Your task to perform on an android device: Open Maps and search for coffee Image 0: 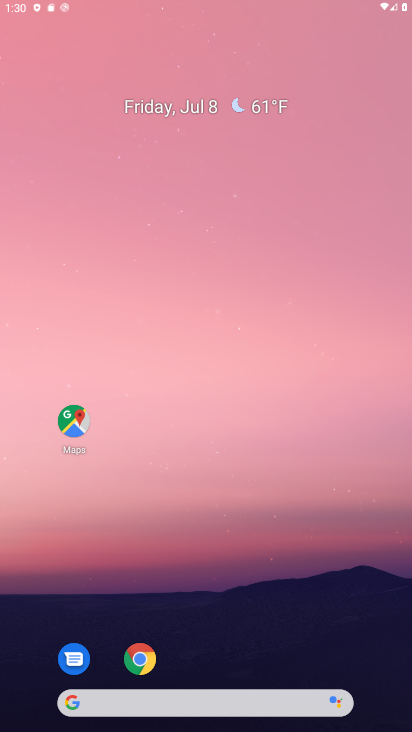
Step 0: press home button
Your task to perform on an android device: Open Maps and search for coffee Image 1: 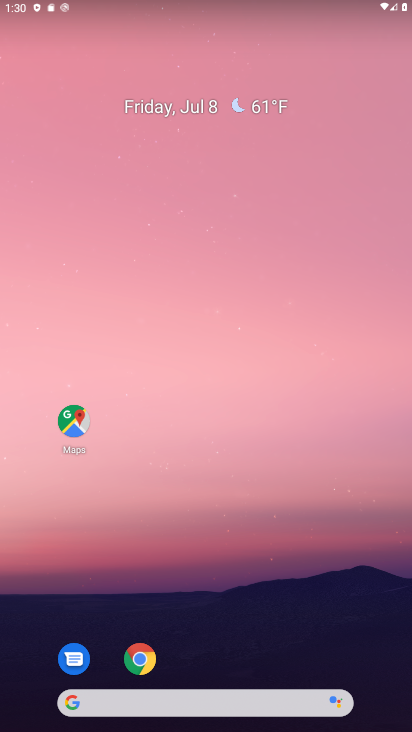
Step 1: drag from (206, 697) to (131, 178)
Your task to perform on an android device: Open Maps and search for coffee Image 2: 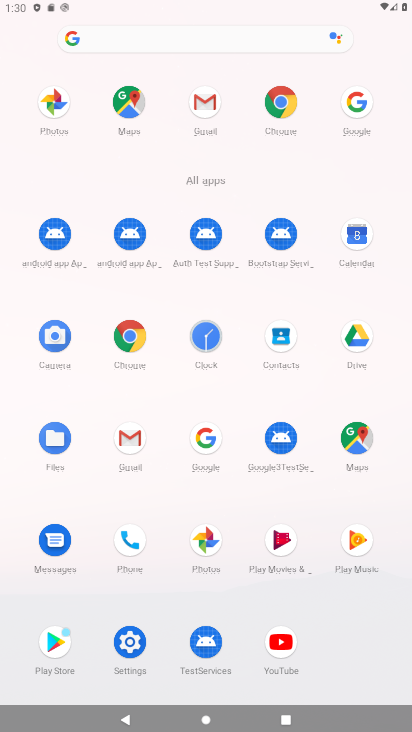
Step 2: click (358, 433)
Your task to perform on an android device: Open Maps and search for coffee Image 3: 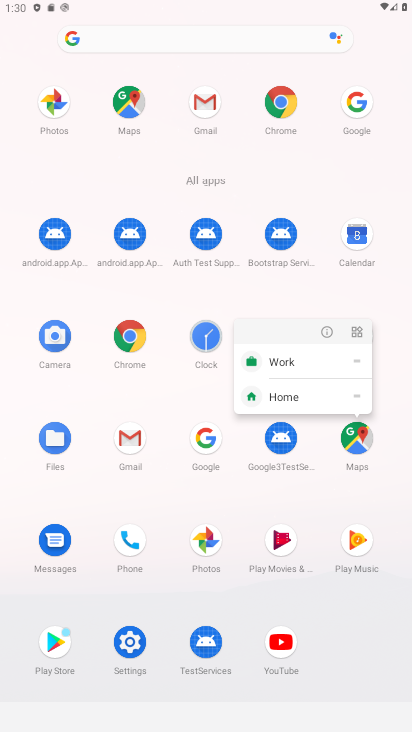
Step 3: click (358, 450)
Your task to perform on an android device: Open Maps and search for coffee Image 4: 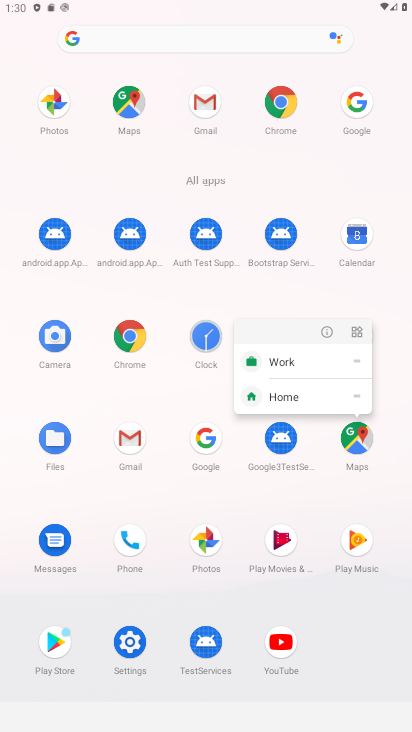
Step 4: click (355, 448)
Your task to perform on an android device: Open Maps and search for coffee Image 5: 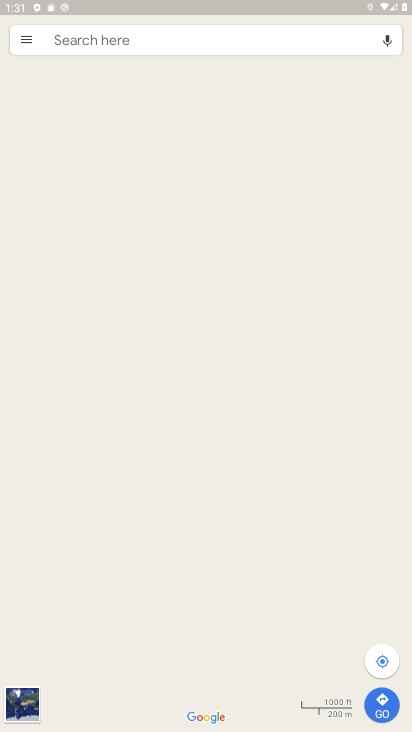
Step 5: click (141, 50)
Your task to perform on an android device: Open Maps and search for coffee Image 6: 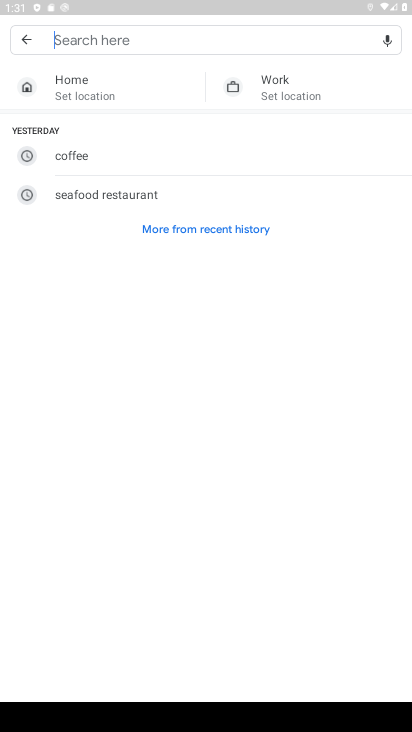
Step 6: click (113, 149)
Your task to perform on an android device: Open Maps and search for coffee Image 7: 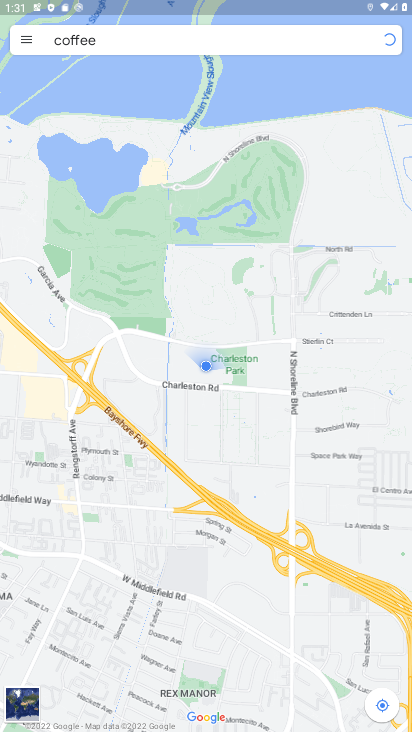
Step 7: task complete